Your task to perform on an android device: Open wifi settings Image 0: 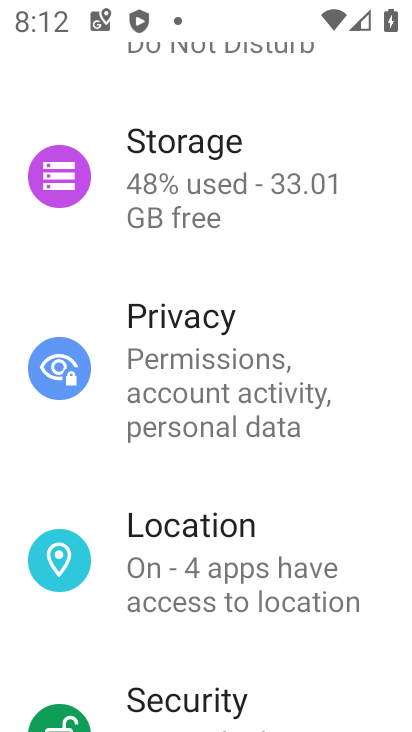
Step 0: drag from (252, 169) to (332, 697)
Your task to perform on an android device: Open wifi settings Image 1: 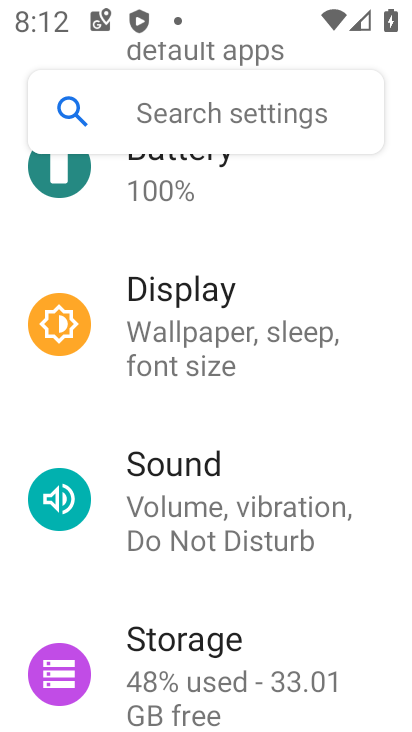
Step 1: drag from (209, 223) to (250, 626)
Your task to perform on an android device: Open wifi settings Image 2: 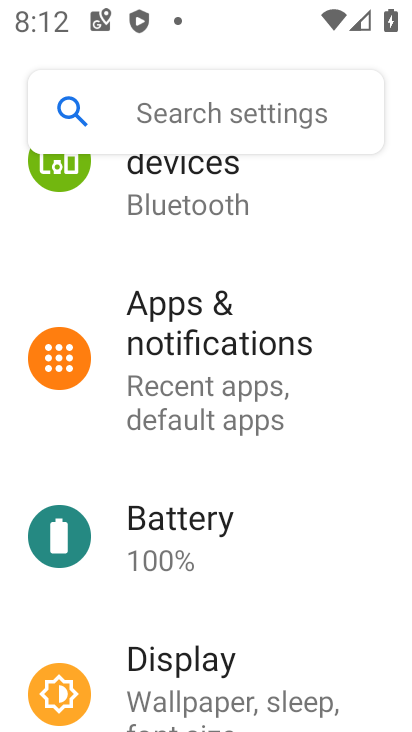
Step 2: drag from (159, 205) to (219, 543)
Your task to perform on an android device: Open wifi settings Image 3: 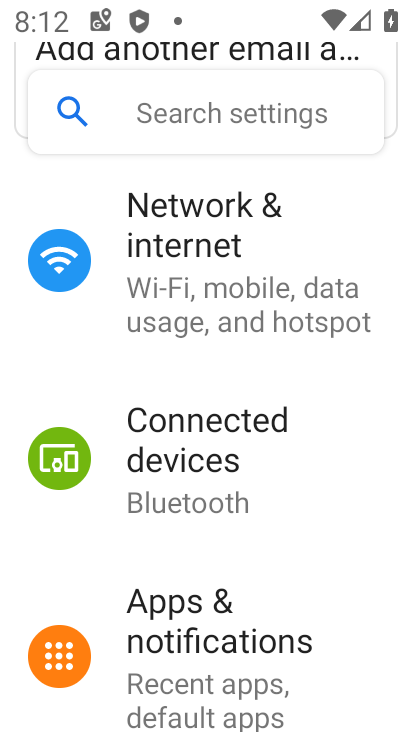
Step 3: click (173, 283)
Your task to perform on an android device: Open wifi settings Image 4: 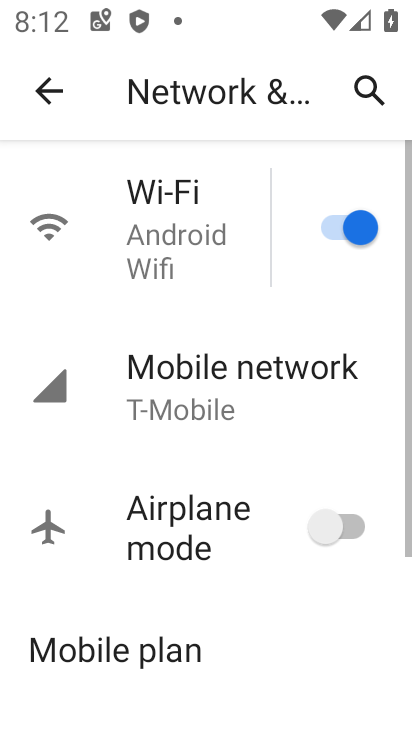
Step 4: click (190, 248)
Your task to perform on an android device: Open wifi settings Image 5: 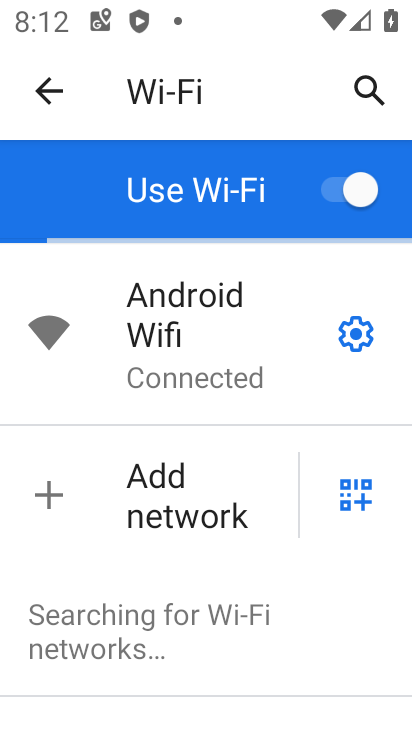
Step 5: task complete